Your task to perform on an android device: check android version Image 0: 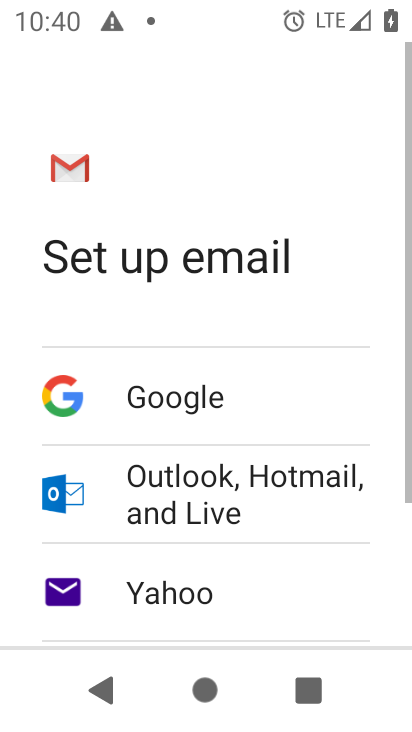
Step 0: press home button
Your task to perform on an android device: check android version Image 1: 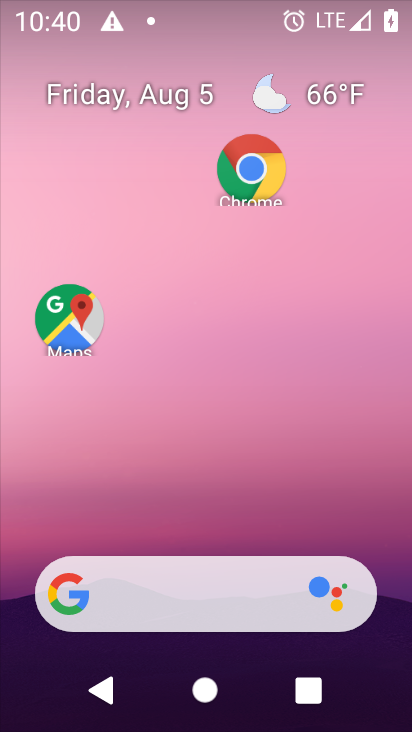
Step 1: drag from (226, 474) to (173, 118)
Your task to perform on an android device: check android version Image 2: 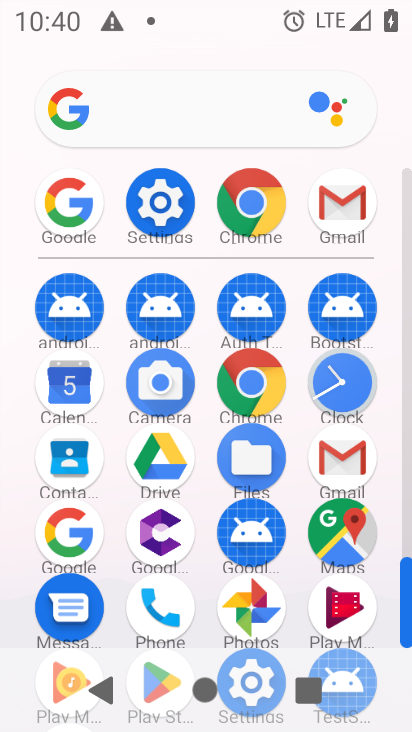
Step 2: click (188, 173)
Your task to perform on an android device: check android version Image 3: 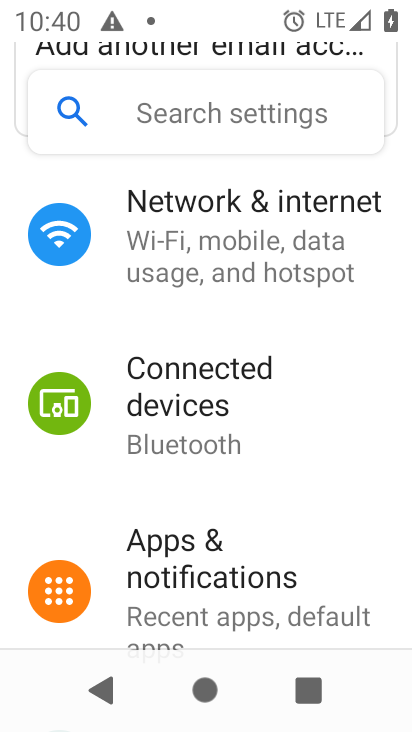
Step 3: drag from (250, 499) to (201, 146)
Your task to perform on an android device: check android version Image 4: 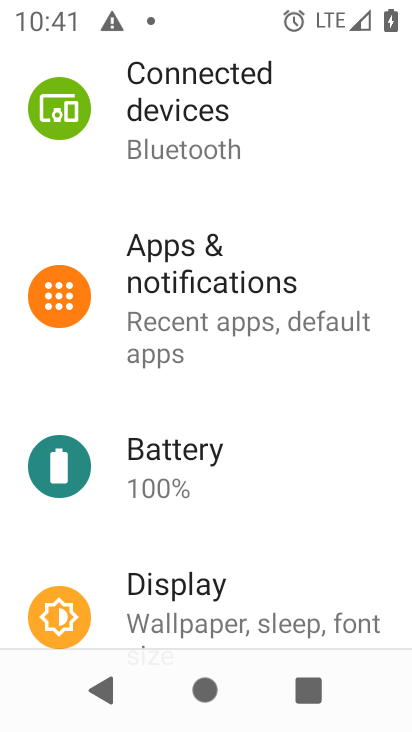
Step 4: drag from (237, 514) to (198, 106)
Your task to perform on an android device: check android version Image 5: 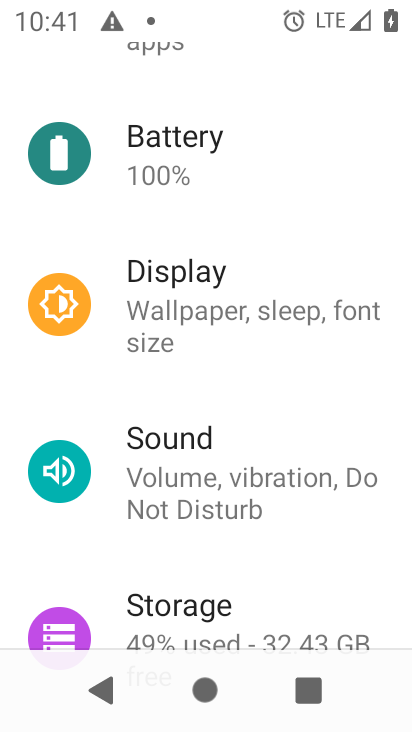
Step 5: drag from (242, 544) to (208, 61)
Your task to perform on an android device: check android version Image 6: 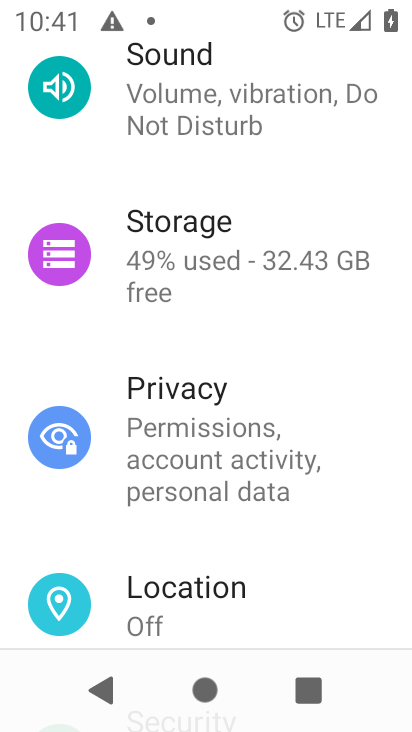
Step 6: drag from (256, 528) to (212, 51)
Your task to perform on an android device: check android version Image 7: 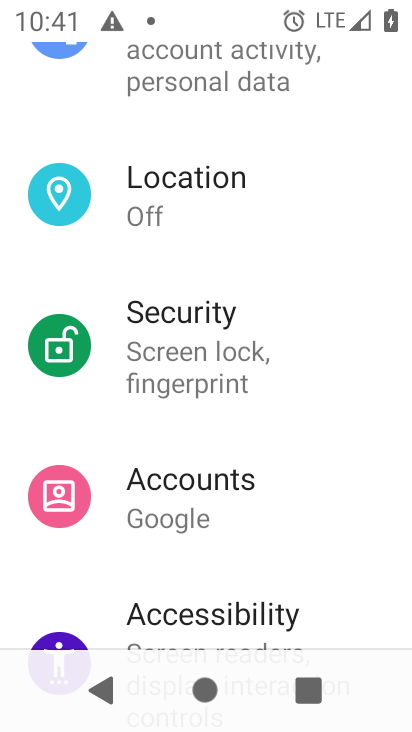
Step 7: drag from (234, 566) to (199, 78)
Your task to perform on an android device: check android version Image 8: 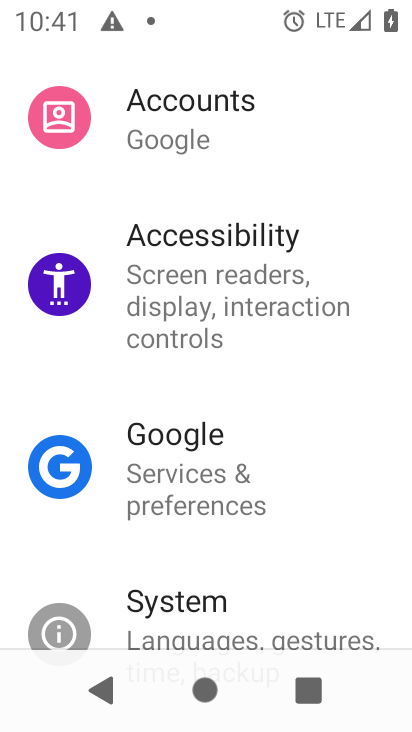
Step 8: drag from (215, 596) to (166, 130)
Your task to perform on an android device: check android version Image 9: 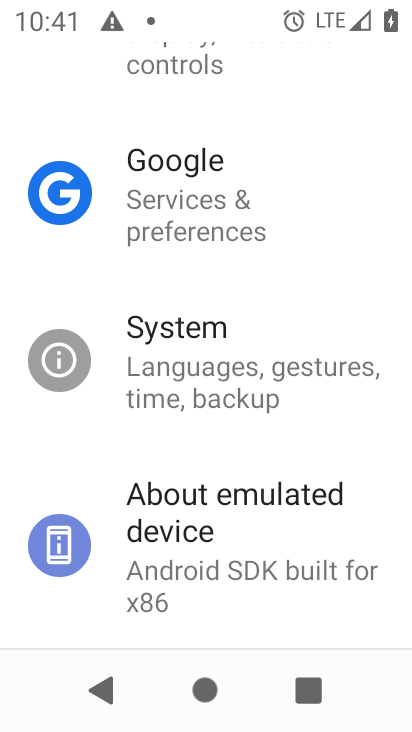
Step 9: drag from (177, 527) to (187, 139)
Your task to perform on an android device: check android version Image 10: 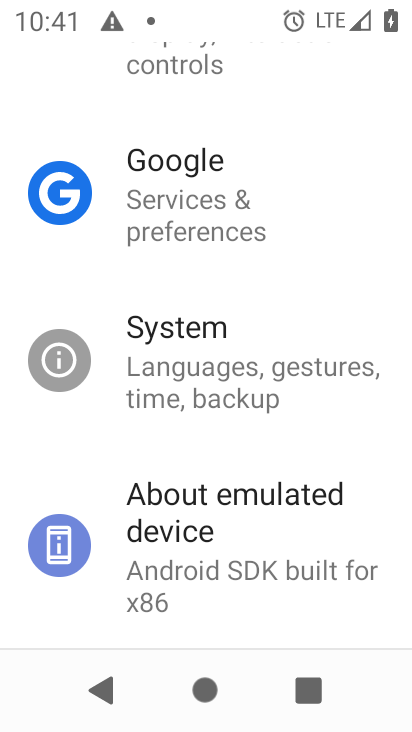
Step 10: drag from (215, 592) to (169, 156)
Your task to perform on an android device: check android version Image 11: 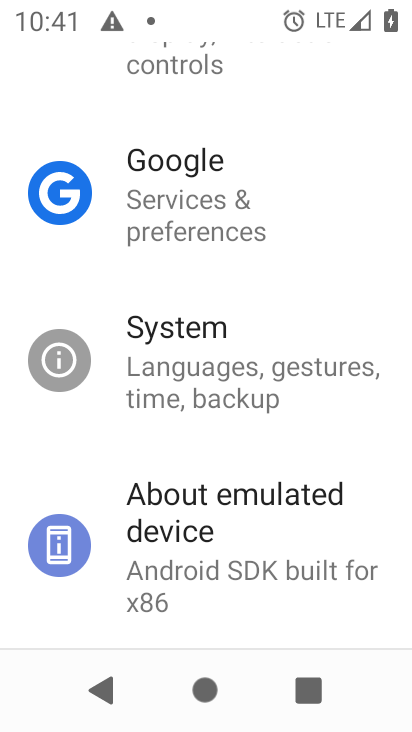
Step 11: click (194, 547)
Your task to perform on an android device: check android version Image 12: 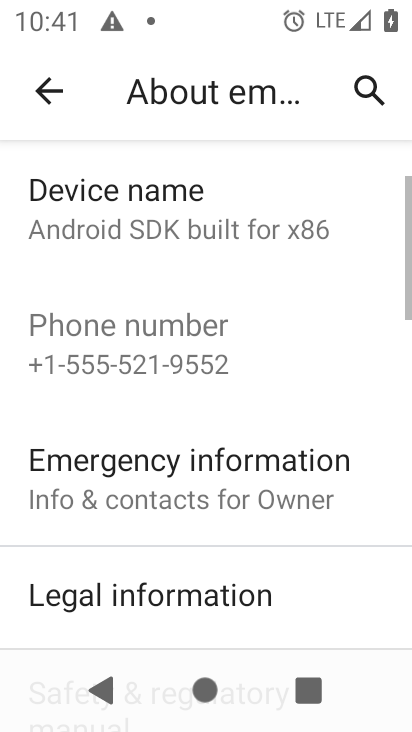
Step 12: drag from (209, 563) to (176, 191)
Your task to perform on an android device: check android version Image 13: 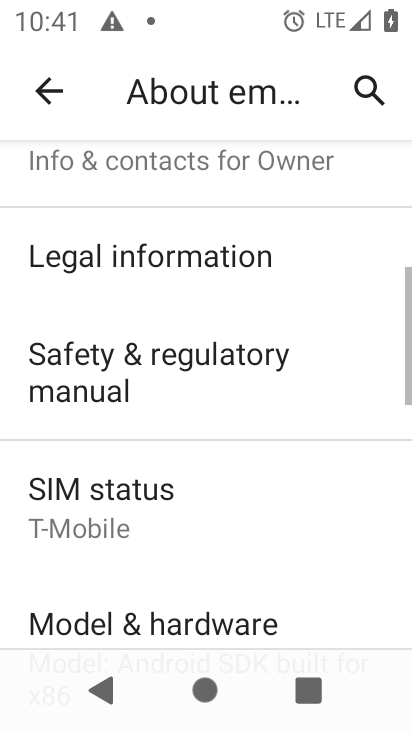
Step 13: drag from (178, 507) to (170, 283)
Your task to perform on an android device: check android version Image 14: 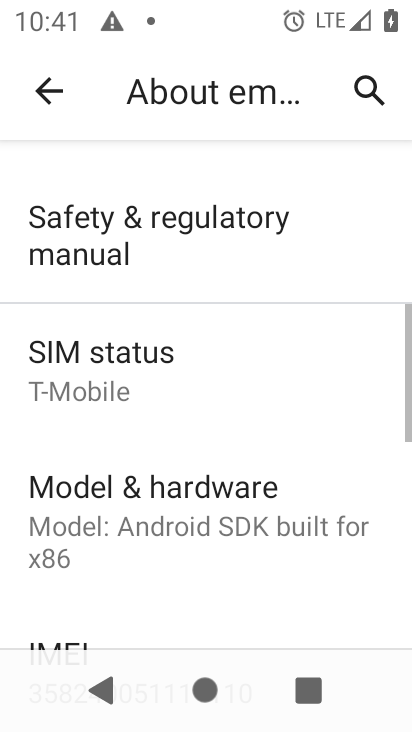
Step 14: drag from (204, 532) to (161, 141)
Your task to perform on an android device: check android version Image 15: 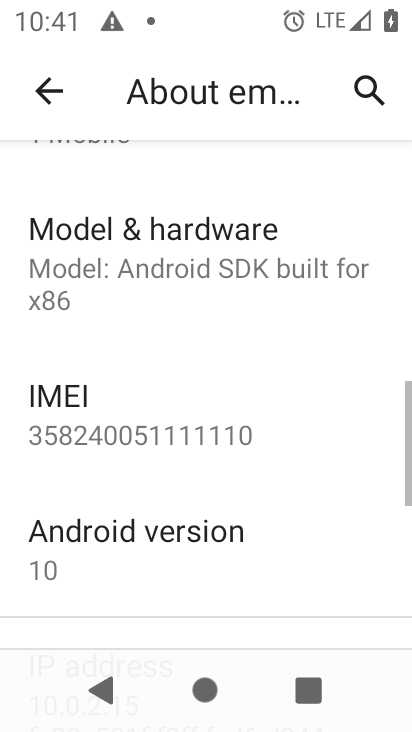
Step 15: click (169, 520)
Your task to perform on an android device: check android version Image 16: 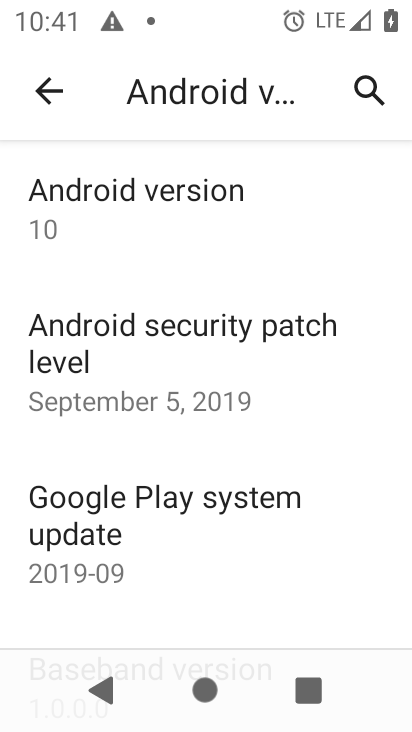
Step 16: click (215, 184)
Your task to perform on an android device: check android version Image 17: 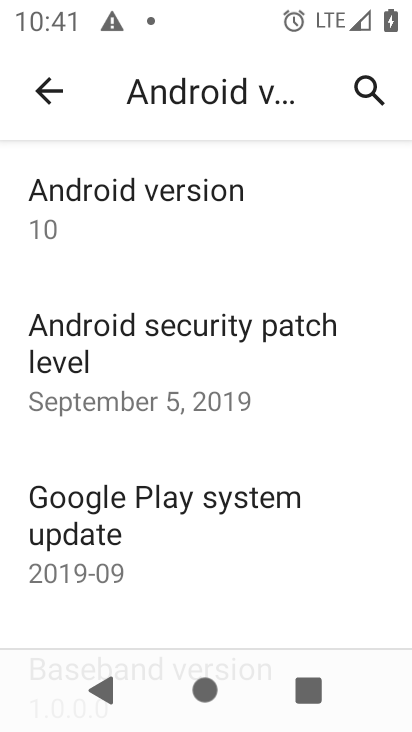
Step 17: task complete